Your task to perform on an android device: move a message to another label in the gmail app Image 0: 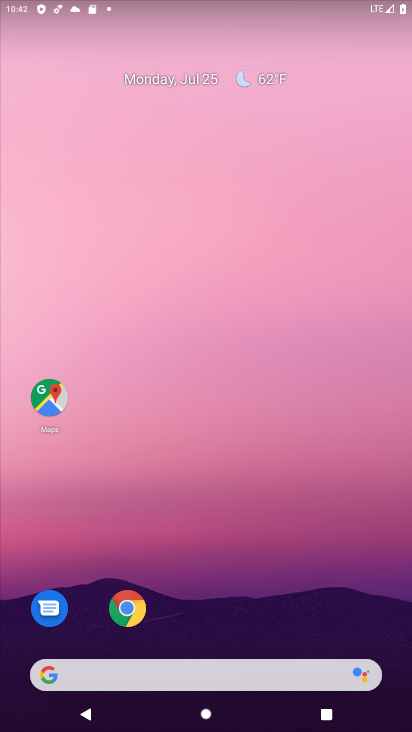
Step 0: drag from (215, 325) to (229, 89)
Your task to perform on an android device: move a message to another label in the gmail app Image 1: 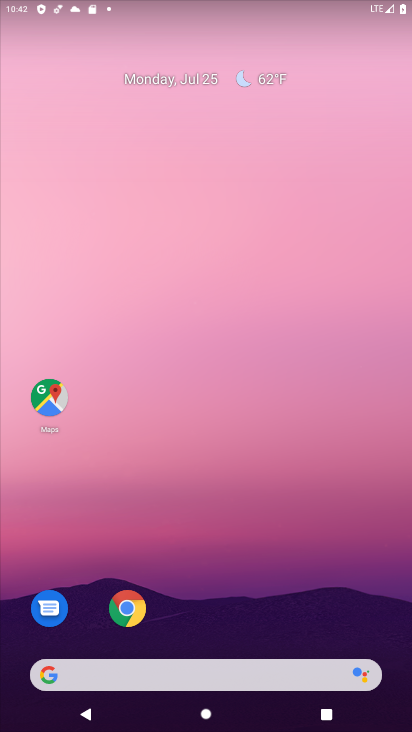
Step 1: drag from (237, 648) to (249, 71)
Your task to perform on an android device: move a message to another label in the gmail app Image 2: 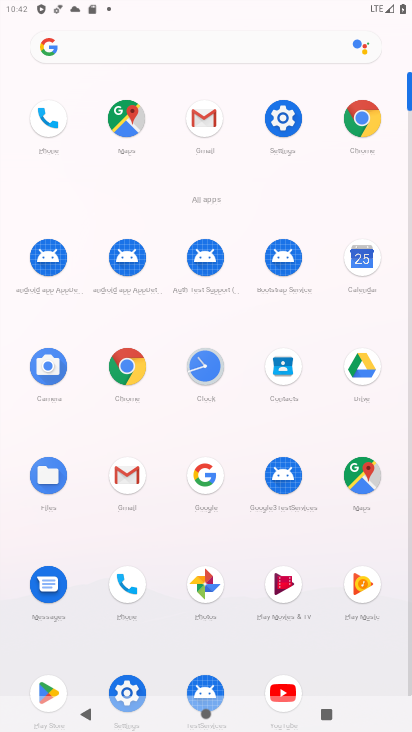
Step 2: click (126, 484)
Your task to perform on an android device: move a message to another label in the gmail app Image 3: 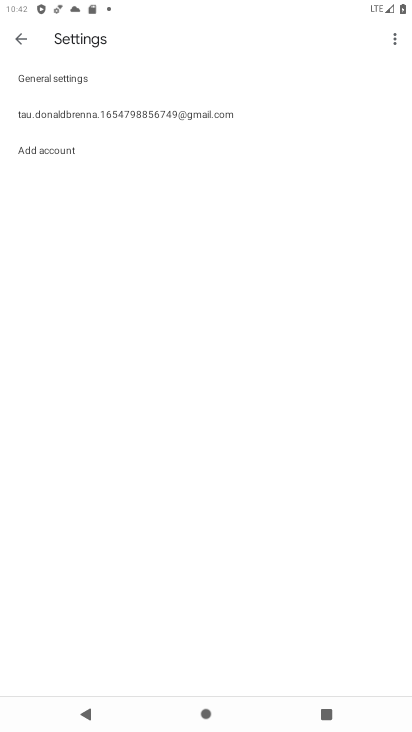
Step 3: click (19, 30)
Your task to perform on an android device: move a message to another label in the gmail app Image 4: 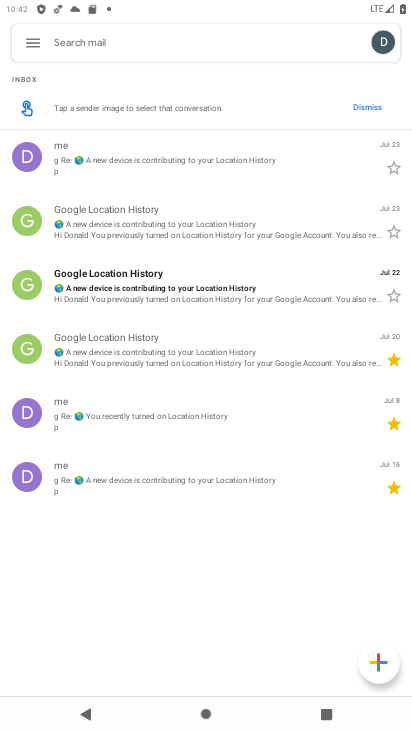
Step 4: click (29, 154)
Your task to perform on an android device: move a message to another label in the gmail app Image 5: 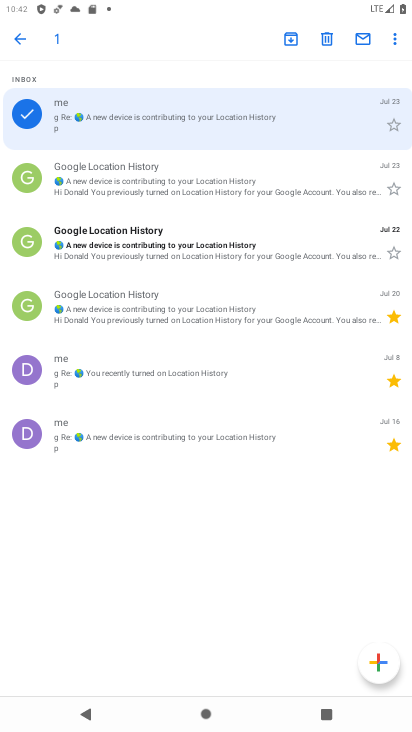
Step 5: click (393, 36)
Your task to perform on an android device: move a message to another label in the gmail app Image 6: 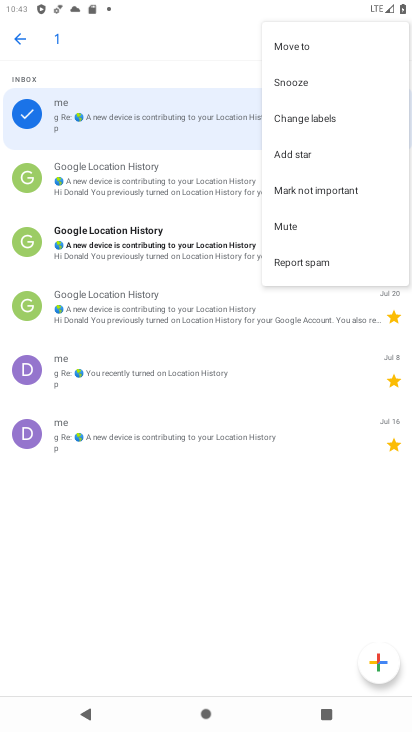
Step 6: click (331, 117)
Your task to perform on an android device: move a message to another label in the gmail app Image 7: 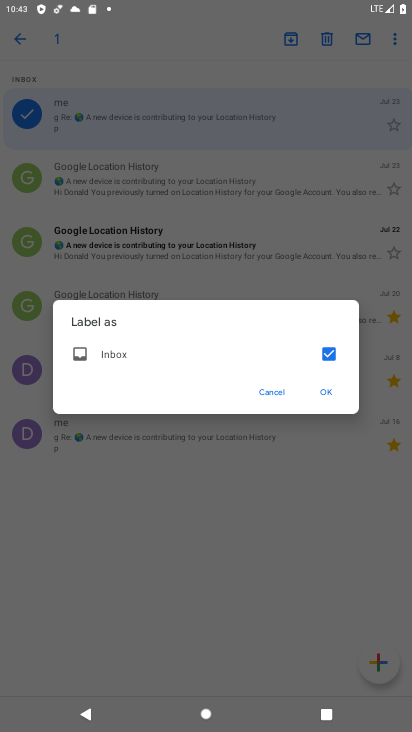
Step 7: click (326, 361)
Your task to perform on an android device: move a message to another label in the gmail app Image 8: 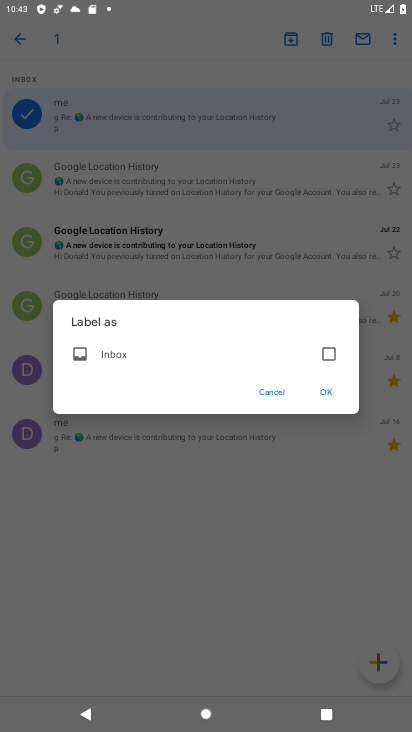
Step 8: click (334, 381)
Your task to perform on an android device: move a message to another label in the gmail app Image 9: 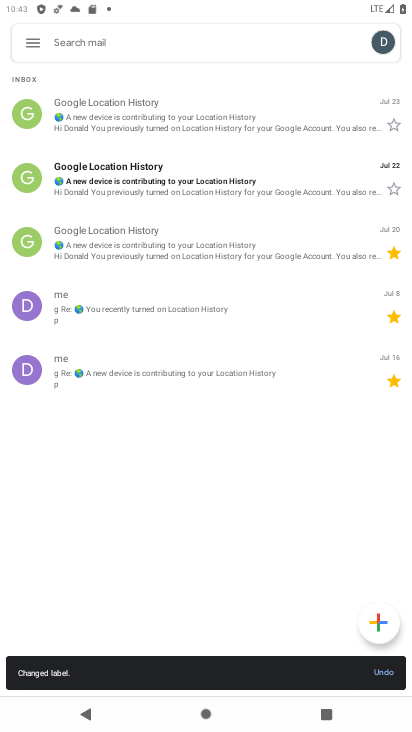
Step 9: task complete